Your task to perform on an android device: change the clock display to analog Image 0: 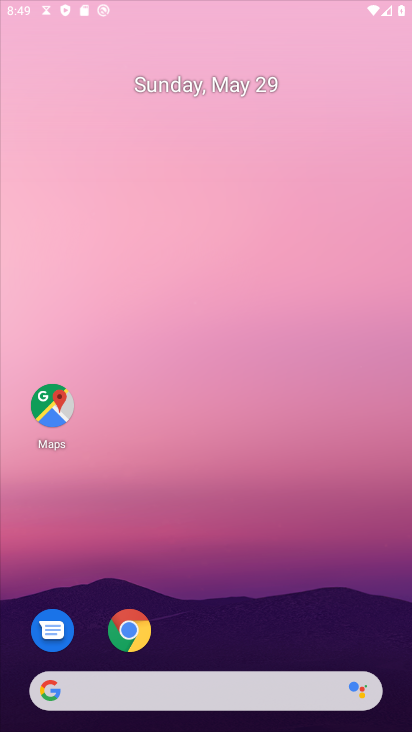
Step 0: click (236, 266)
Your task to perform on an android device: change the clock display to analog Image 1: 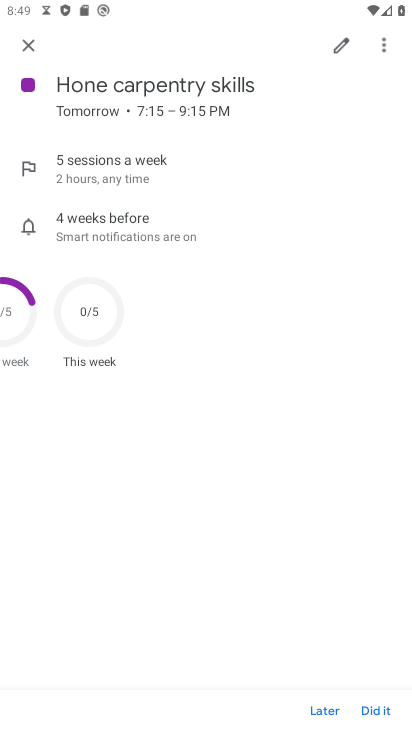
Step 1: press home button
Your task to perform on an android device: change the clock display to analog Image 2: 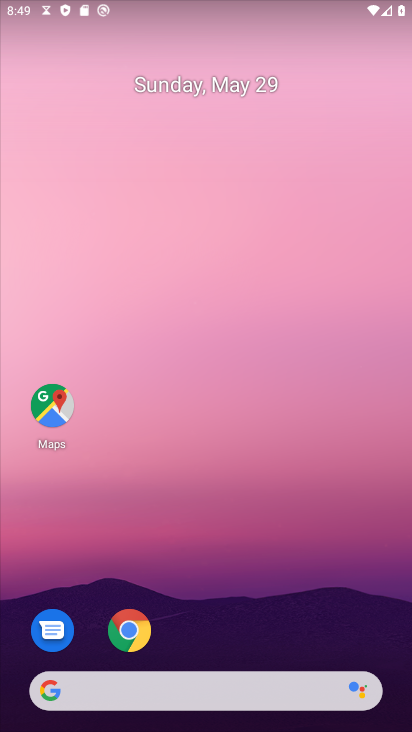
Step 2: drag from (235, 610) to (230, 184)
Your task to perform on an android device: change the clock display to analog Image 3: 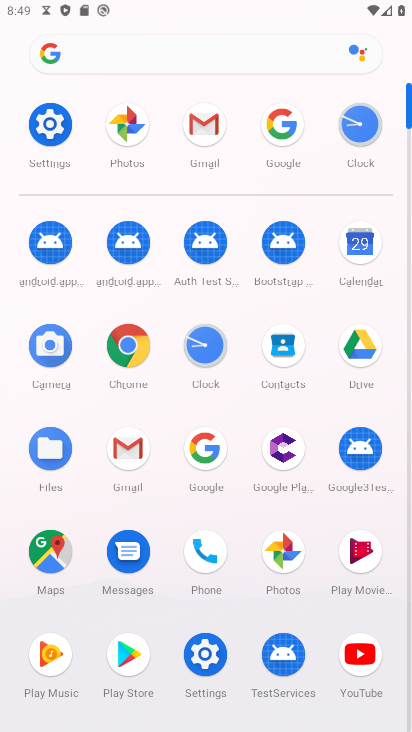
Step 3: click (363, 130)
Your task to perform on an android device: change the clock display to analog Image 4: 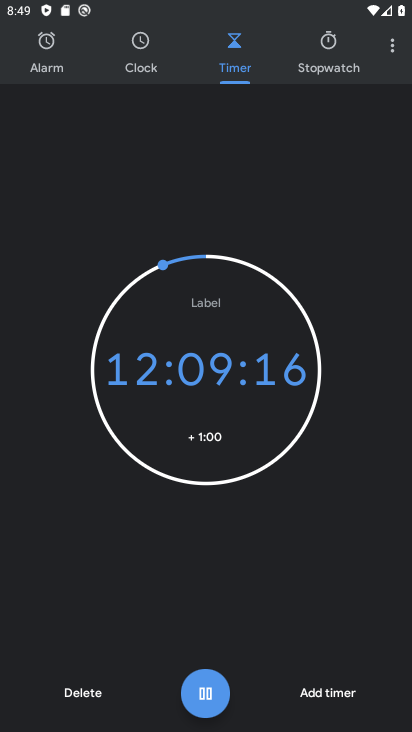
Step 4: click (397, 52)
Your task to perform on an android device: change the clock display to analog Image 5: 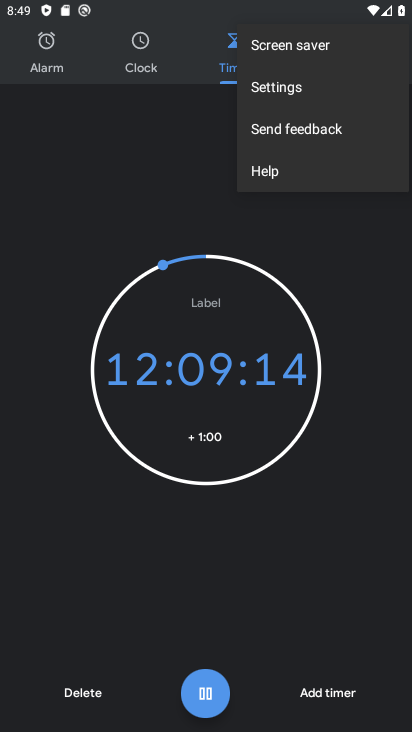
Step 5: click (294, 87)
Your task to perform on an android device: change the clock display to analog Image 6: 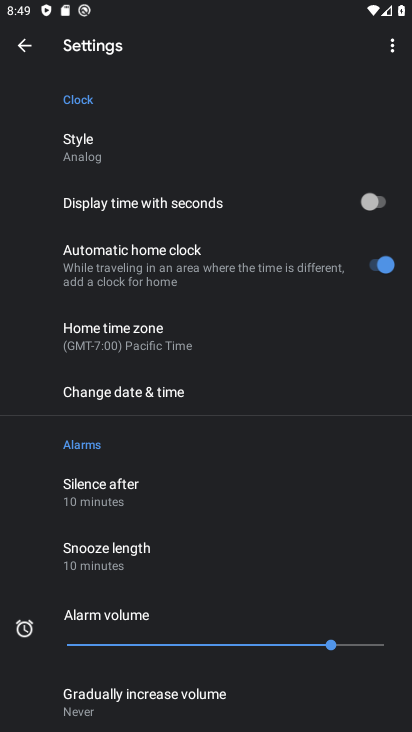
Step 6: click (97, 145)
Your task to perform on an android device: change the clock display to analog Image 7: 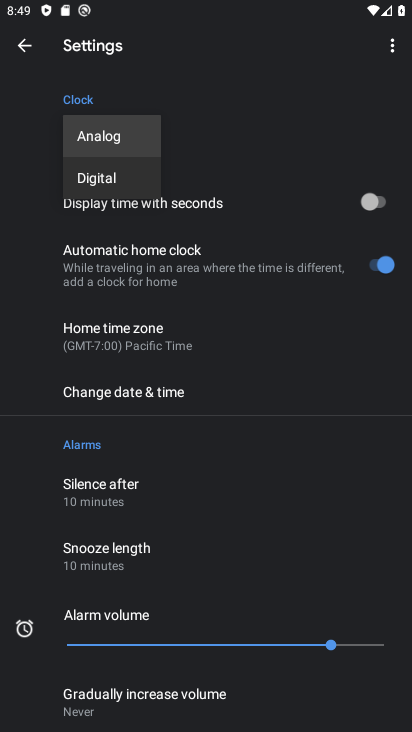
Step 7: click (106, 177)
Your task to perform on an android device: change the clock display to analog Image 8: 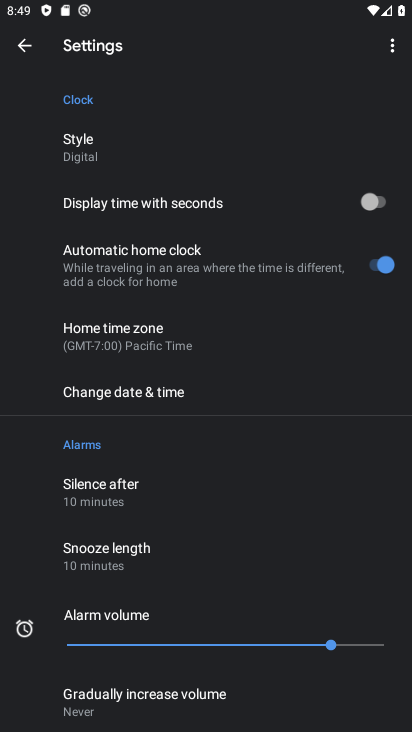
Step 8: task complete